Your task to perform on an android device: Open Chrome and go to the settings page Image 0: 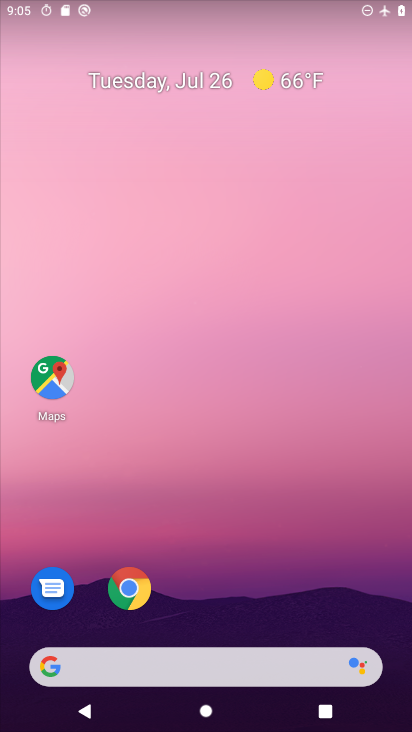
Step 0: click (122, 590)
Your task to perform on an android device: Open Chrome and go to the settings page Image 1: 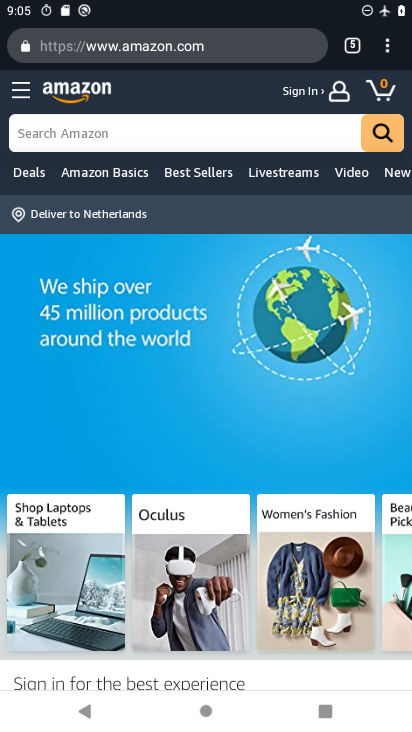
Step 1: click (386, 49)
Your task to perform on an android device: Open Chrome and go to the settings page Image 2: 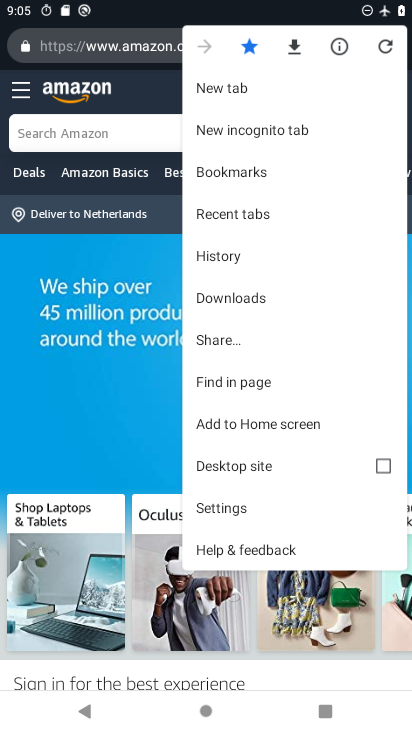
Step 2: click (221, 507)
Your task to perform on an android device: Open Chrome and go to the settings page Image 3: 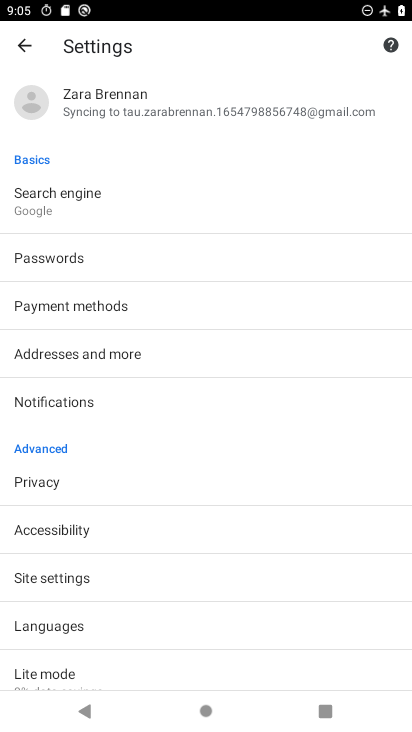
Step 3: task complete